Your task to perform on an android device: uninstall "Adobe Acrobat Reader: Edit PDF" Image 0: 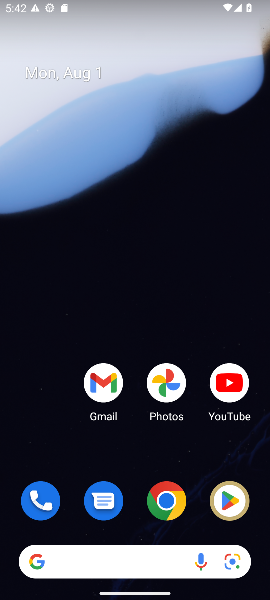
Step 0: click (238, 499)
Your task to perform on an android device: uninstall "Adobe Acrobat Reader: Edit PDF" Image 1: 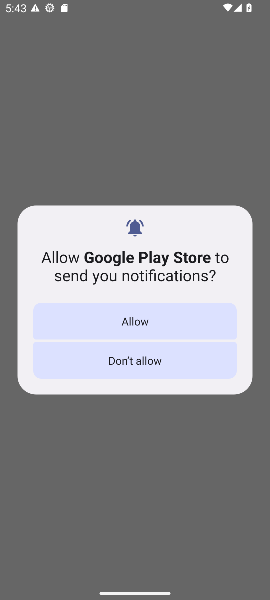
Step 1: press back button
Your task to perform on an android device: uninstall "Adobe Acrobat Reader: Edit PDF" Image 2: 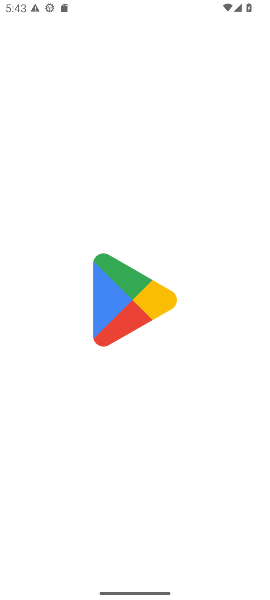
Step 2: press home button
Your task to perform on an android device: uninstall "Adobe Acrobat Reader: Edit PDF" Image 3: 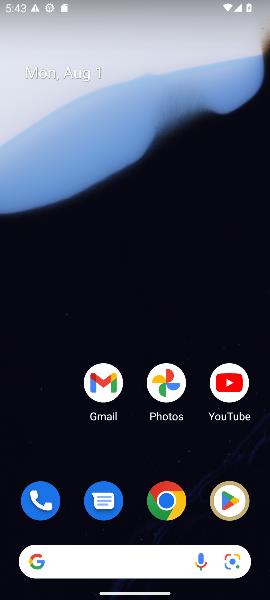
Step 3: click (233, 498)
Your task to perform on an android device: uninstall "Adobe Acrobat Reader: Edit PDF" Image 4: 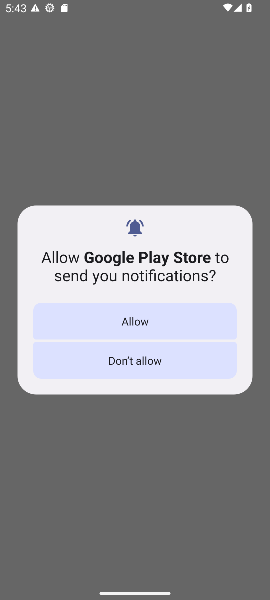
Step 4: click (140, 322)
Your task to perform on an android device: uninstall "Adobe Acrobat Reader: Edit PDF" Image 5: 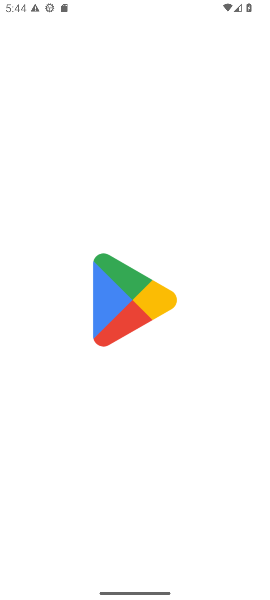
Step 5: press home button
Your task to perform on an android device: uninstall "Adobe Acrobat Reader: Edit PDF" Image 6: 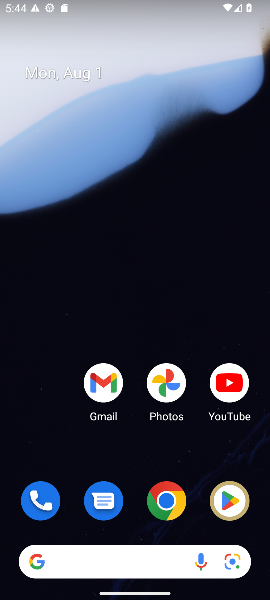
Step 6: click (224, 505)
Your task to perform on an android device: uninstall "Adobe Acrobat Reader: Edit PDF" Image 7: 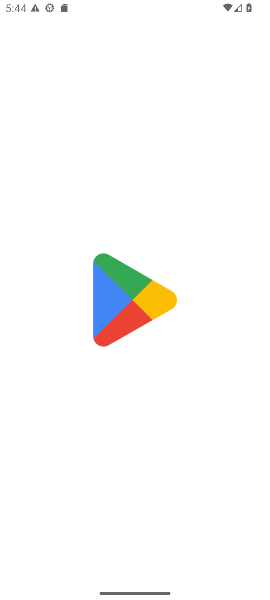
Step 7: task complete